Your task to perform on an android device: turn off wifi Image 0: 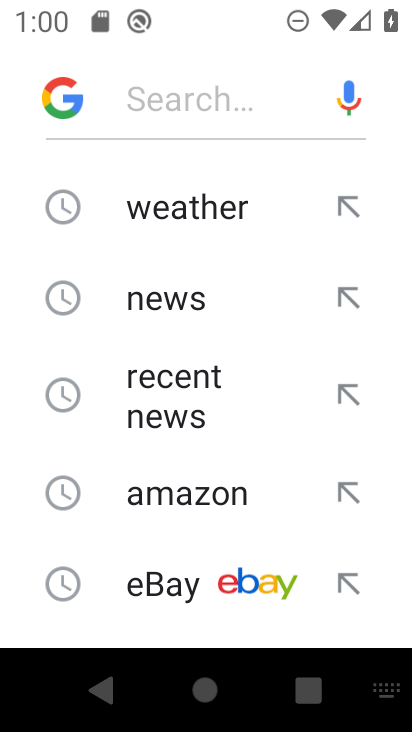
Step 0: press home button
Your task to perform on an android device: turn off wifi Image 1: 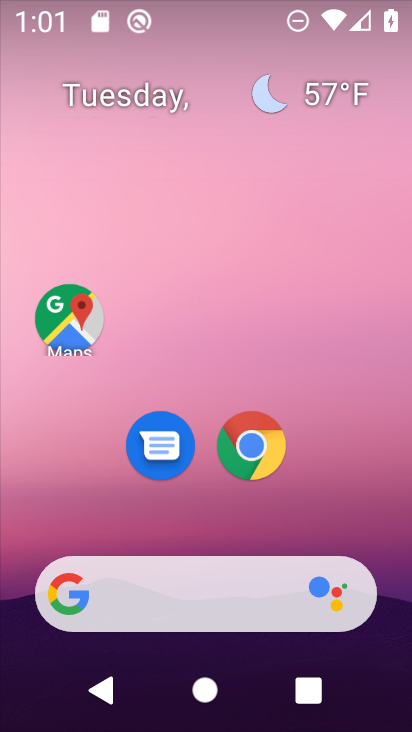
Step 1: drag from (398, 528) to (354, 227)
Your task to perform on an android device: turn off wifi Image 2: 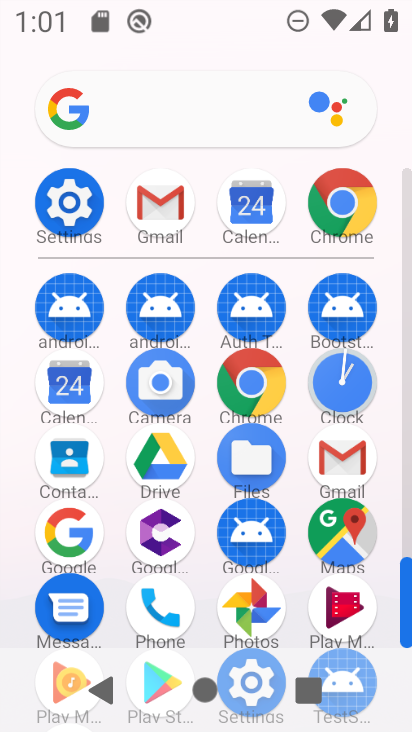
Step 2: drag from (392, 525) to (382, 319)
Your task to perform on an android device: turn off wifi Image 3: 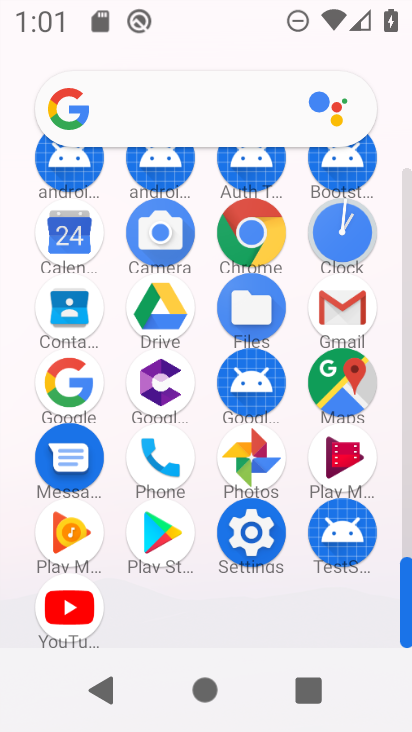
Step 3: click (247, 562)
Your task to perform on an android device: turn off wifi Image 4: 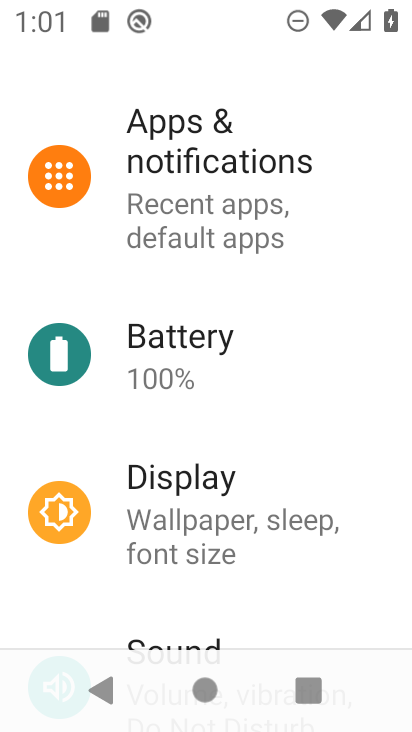
Step 4: drag from (361, 355) to (347, 430)
Your task to perform on an android device: turn off wifi Image 5: 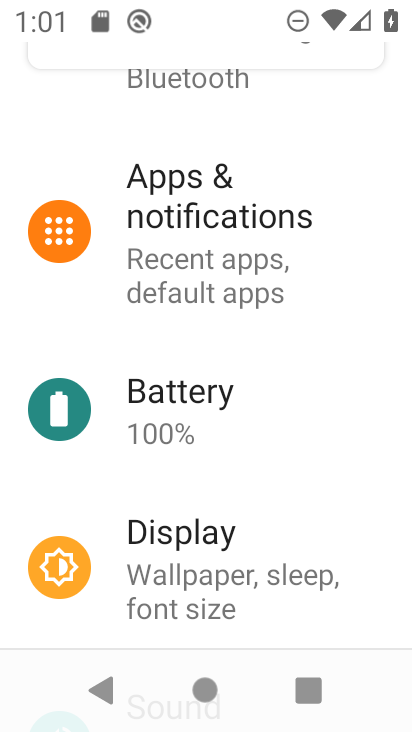
Step 5: drag from (356, 345) to (358, 458)
Your task to perform on an android device: turn off wifi Image 6: 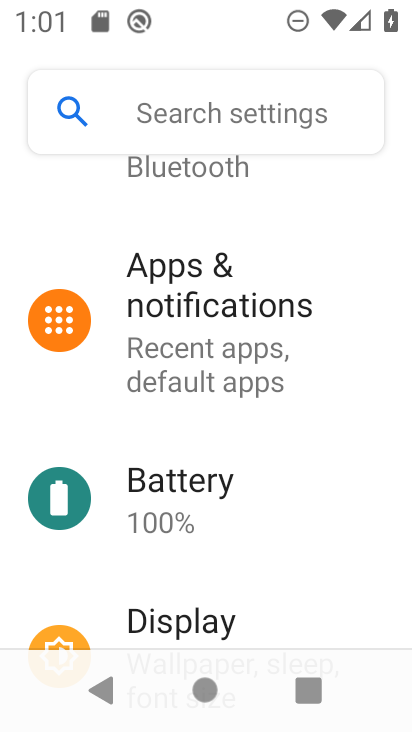
Step 6: drag from (347, 333) to (343, 441)
Your task to perform on an android device: turn off wifi Image 7: 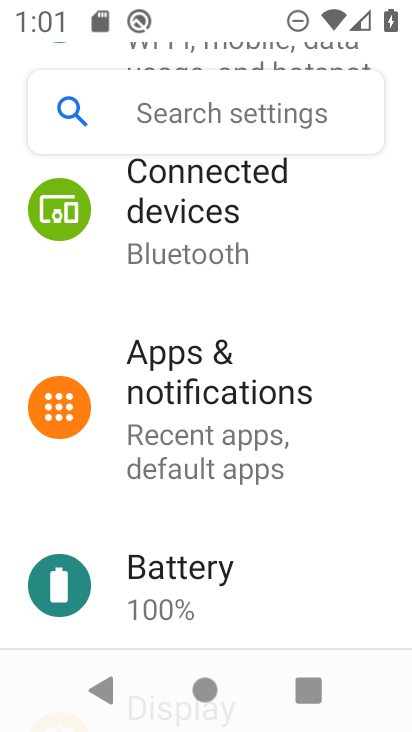
Step 7: drag from (350, 312) to (356, 434)
Your task to perform on an android device: turn off wifi Image 8: 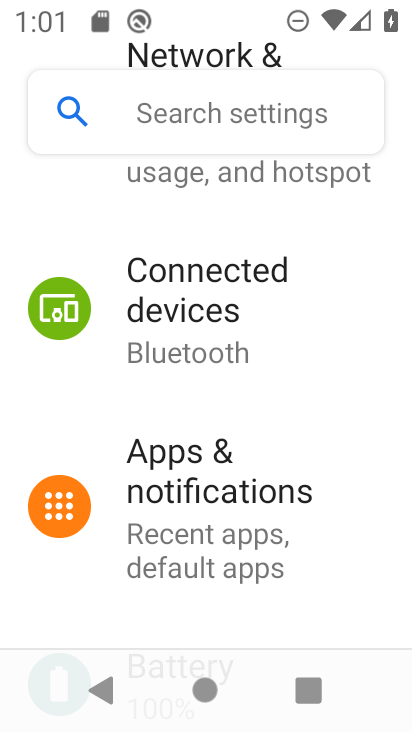
Step 8: drag from (338, 333) to (328, 426)
Your task to perform on an android device: turn off wifi Image 9: 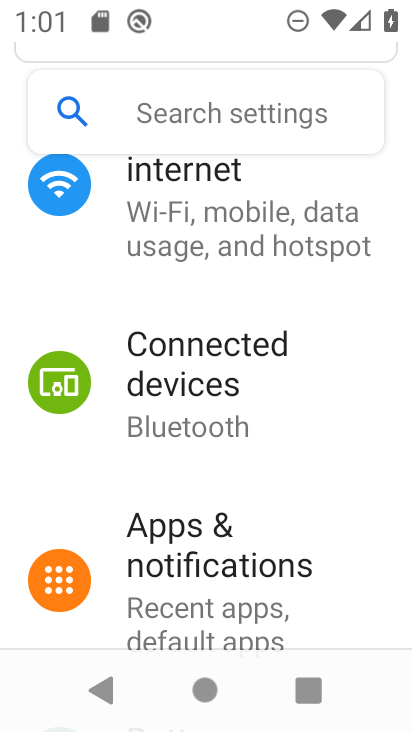
Step 9: drag from (330, 319) to (317, 444)
Your task to perform on an android device: turn off wifi Image 10: 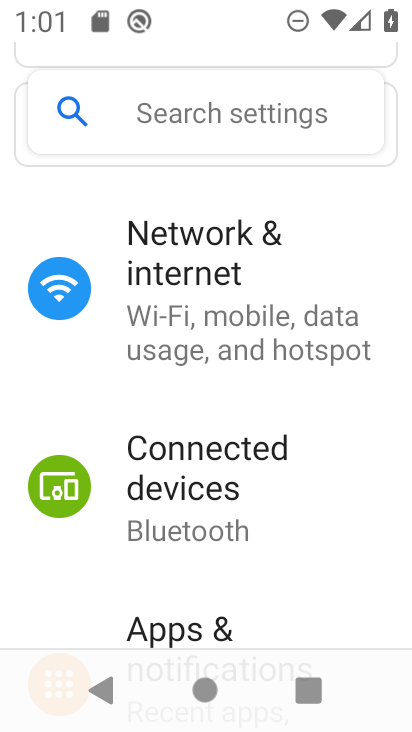
Step 10: drag from (378, 276) to (373, 442)
Your task to perform on an android device: turn off wifi Image 11: 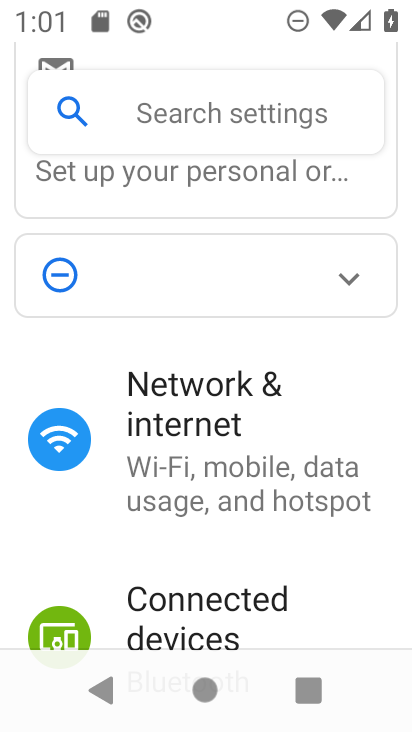
Step 11: click (239, 442)
Your task to perform on an android device: turn off wifi Image 12: 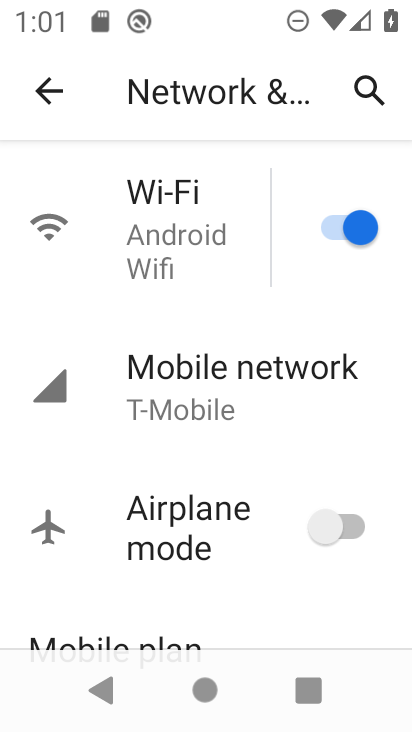
Step 12: click (360, 237)
Your task to perform on an android device: turn off wifi Image 13: 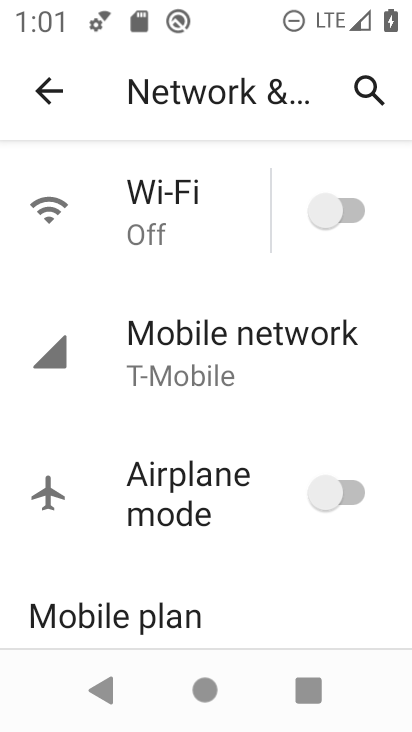
Step 13: task complete